Your task to perform on an android device: Open internet settings Image 0: 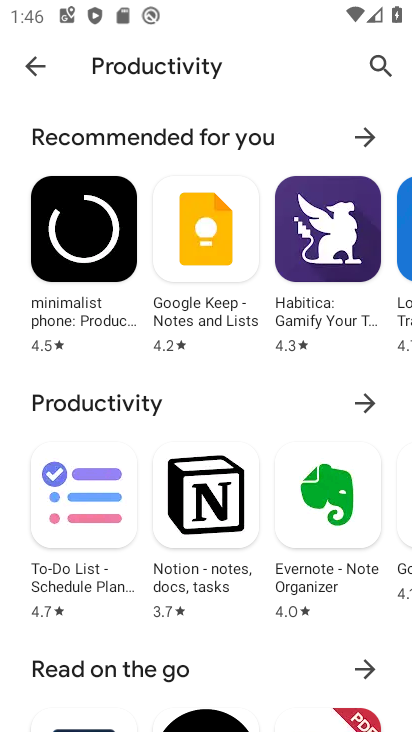
Step 0: press home button
Your task to perform on an android device: Open internet settings Image 1: 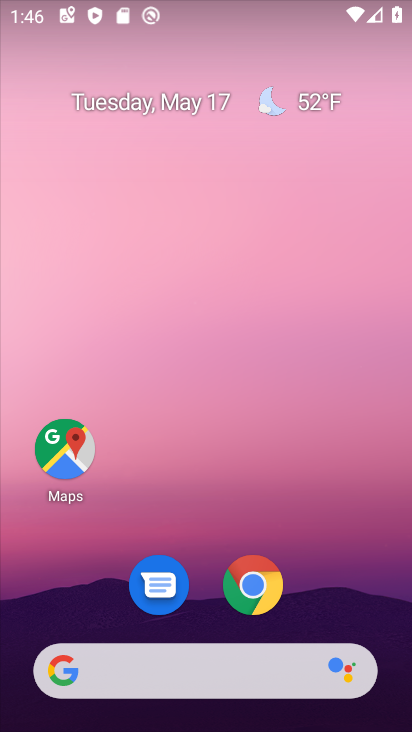
Step 1: drag from (216, 498) to (232, 71)
Your task to perform on an android device: Open internet settings Image 2: 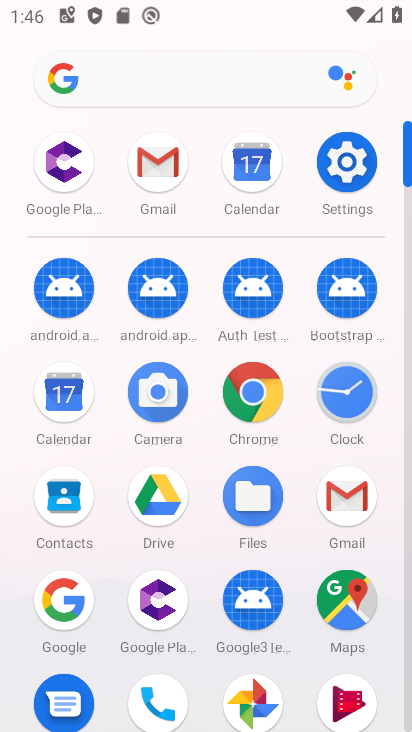
Step 2: click (350, 168)
Your task to perform on an android device: Open internet settings Image 3: 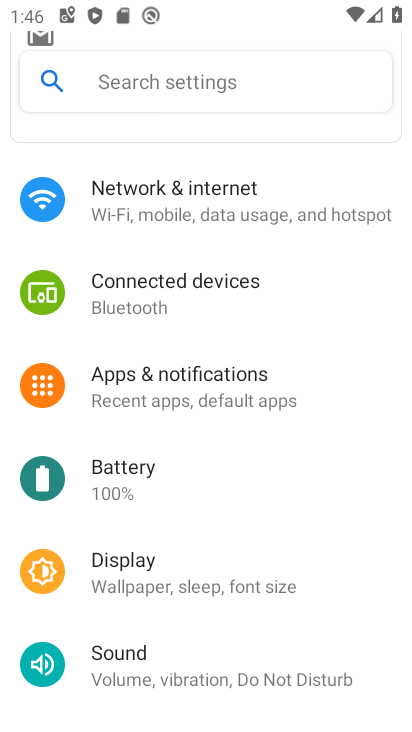
Step 3: click (233, 194)
Your task to perform on an android device: Open internet settings Image 4: 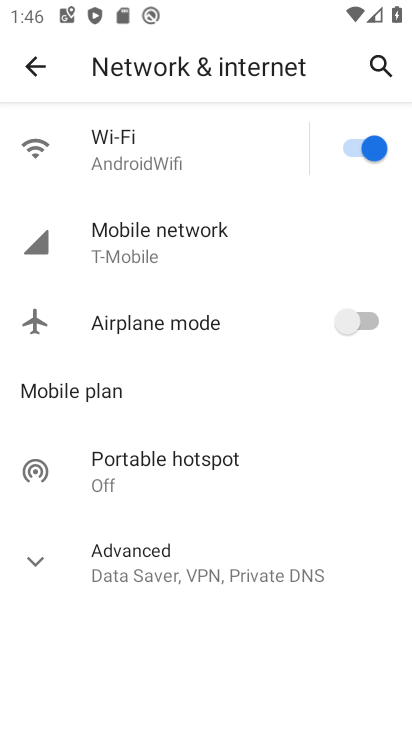
Step 4: task complete